Your task to perform on an android device: Search for sushi restaurants on Maps Image 0: 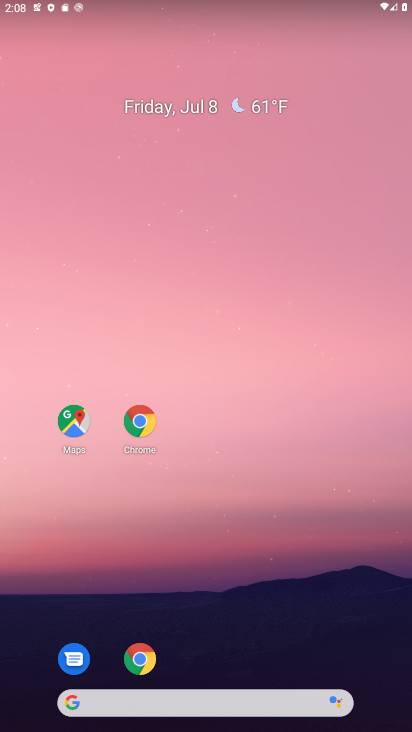
Step 0: drag from (225, 692) to (187, 84)
Your task to perform on an android device: Search for sushi restaurants on Maps Image 1: 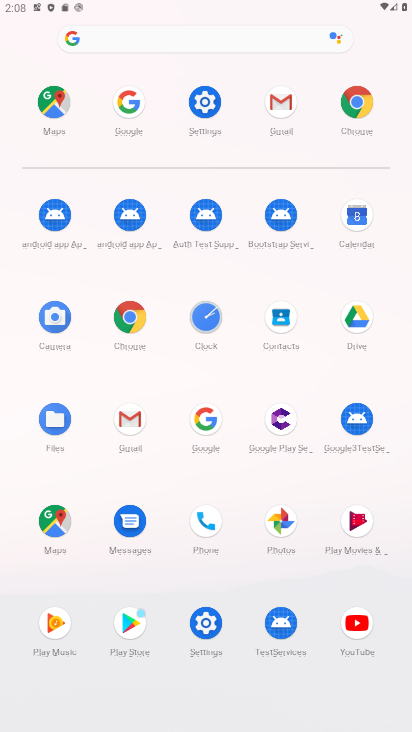
Step 1: click (56, 521)
Your task to perform on an android device: Search for sushi restaurants on Maps Image 2: 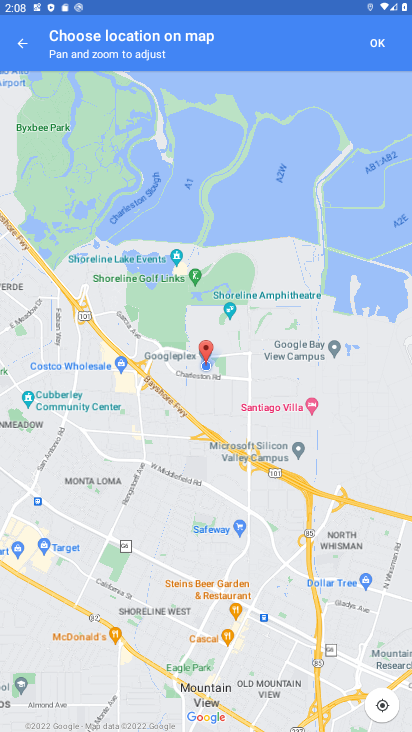
Step 2: click (27, 47)
Your task to perform on an android device: Search for sushi restaurants on Maps Image 3: 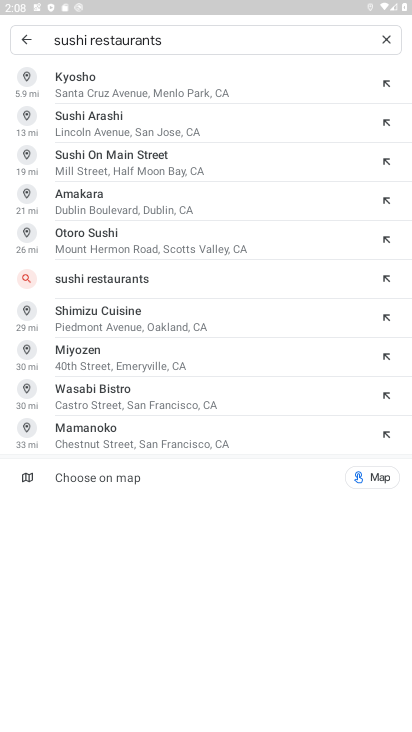
Step 3: click (20, 43)
Your task to perform on an android device: Search for sushi restaurants on Maps Image 4: 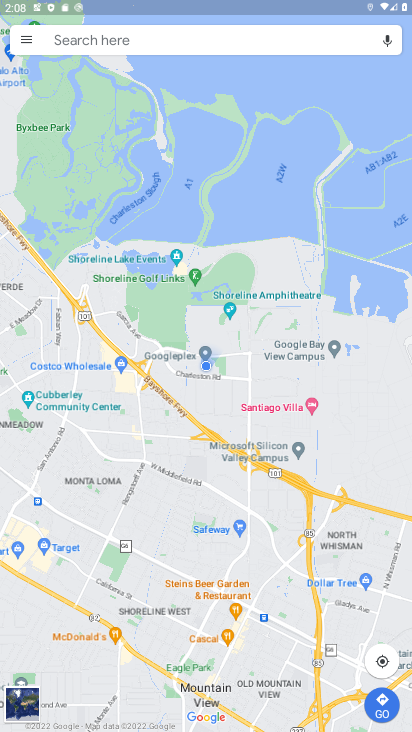
Step 4: click (95, 46)
Your task to perform on an android device: Search for sushi restaurants on Maps Image 5: 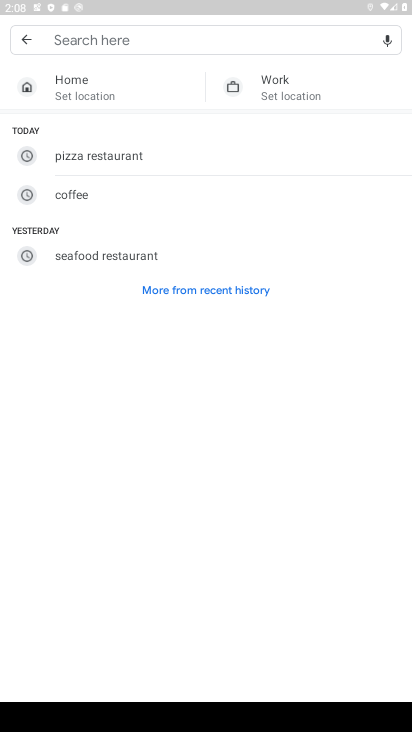
Step 5: type "sushi"
Your task to perform on an android device: Search for sushi restaurants on Maps Image 6: 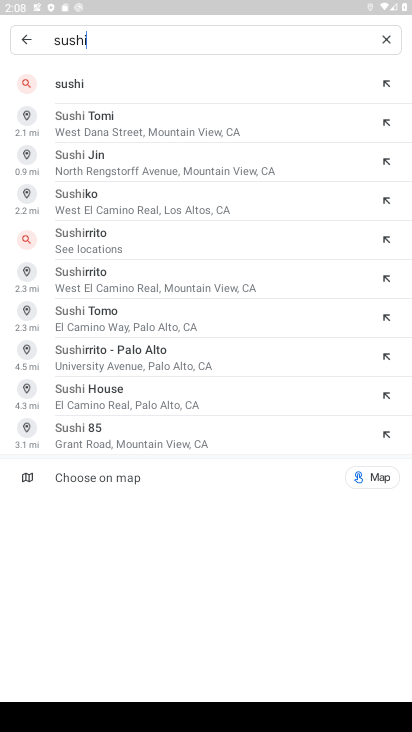
Step 6: type " restuarant"
Your task to perform on an android device: Search for sushi restaurants on Maps Image 7: 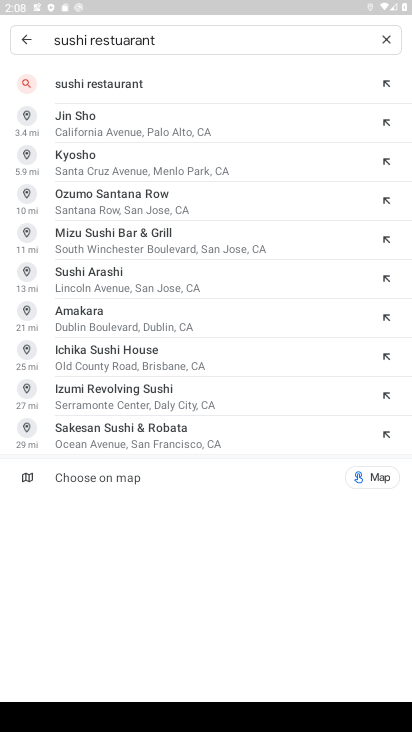
Step 7: click (86, 87)
Your task to perform on an android device: Search for sushi restaurants on Maps Image 8: 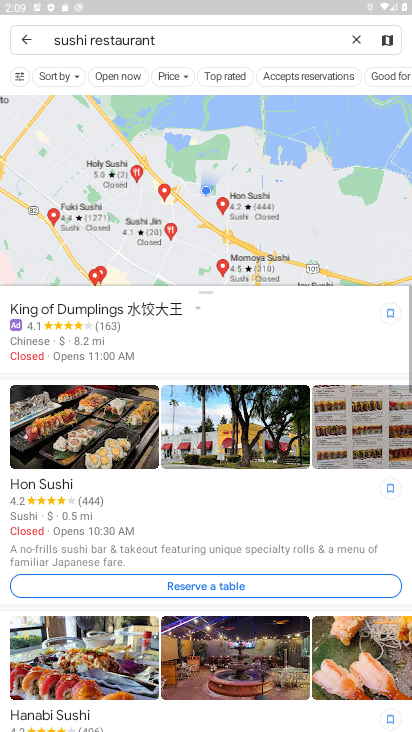
Step 8: task complete